Your task to perform on an android device: delete a single message in the gmail app Image 0: 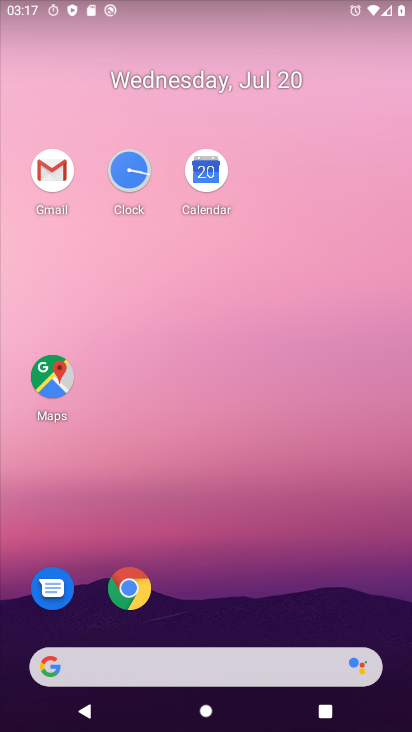
Step 0: click (60, 182)
Your task to perform on an android device: delete a single message in the gmail app Image 1: 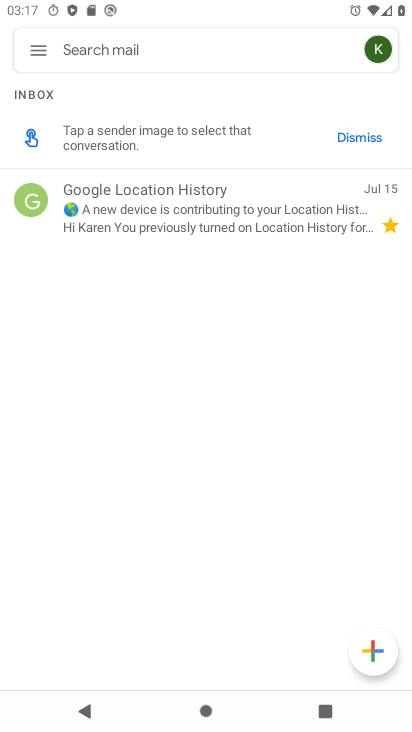
Step 1: click (290, 210)
Your task to perform on an android device: delete a single message in the gmail app Image 2: 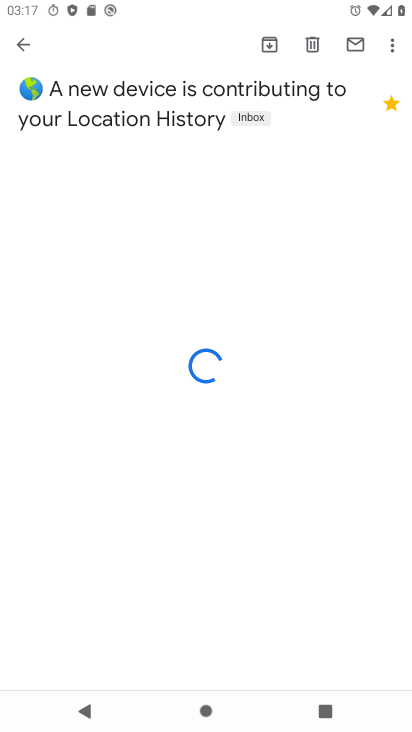
Step 2: click (319, 40)
Your task to perform on an android device: delete a single message in the gmail app Image 3: 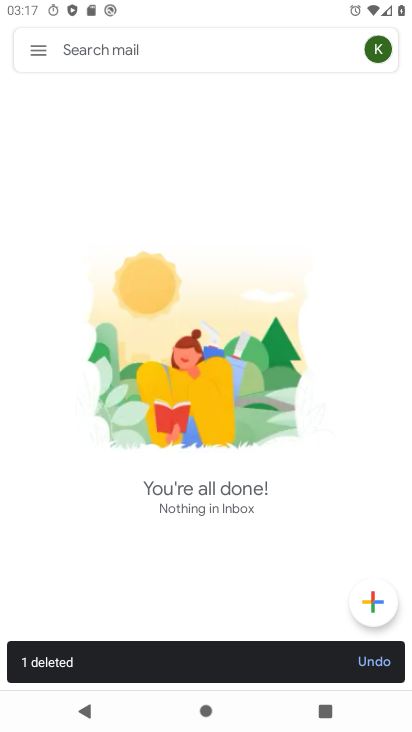
Step 3: task complete